Your task to perform on an android device: Show me productivity apps on the Play Store Image 0: 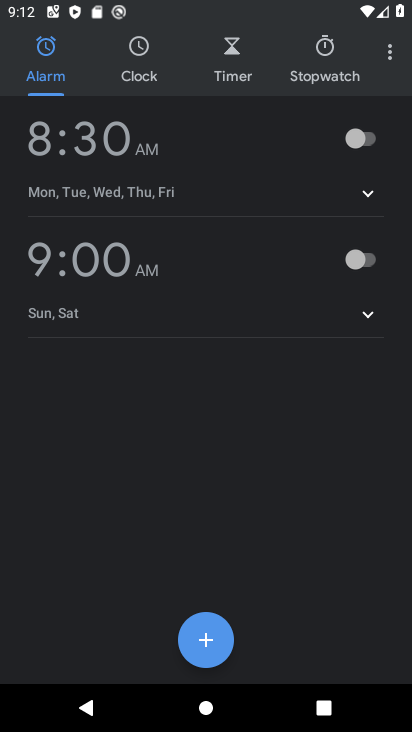
Step 0: press home button
Your task to perform on an android device: Show me productivity apps on the Play Store Image 1: 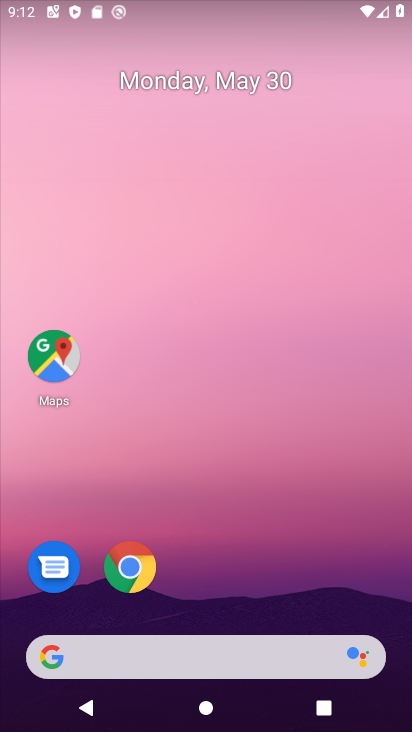
Step 1: drag from (180, 603) to (255, 142)
Your task to perform on an android device: Show me productivity apps on the Play Store Image 2: 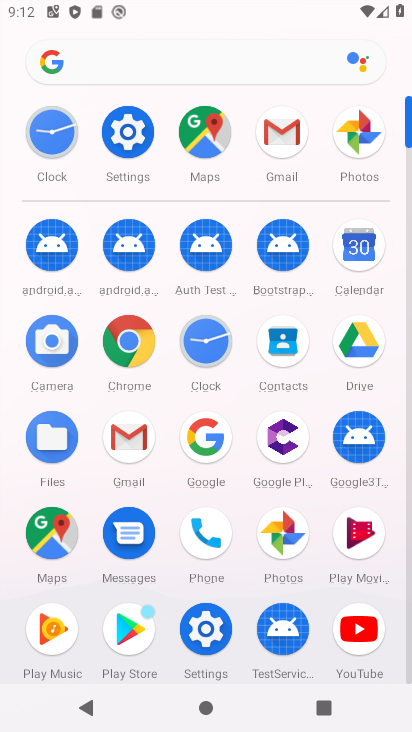
Step 2: click (143, 622)
Your task to perform on an android device: Show me productivity apps on the Play Store Image 3: 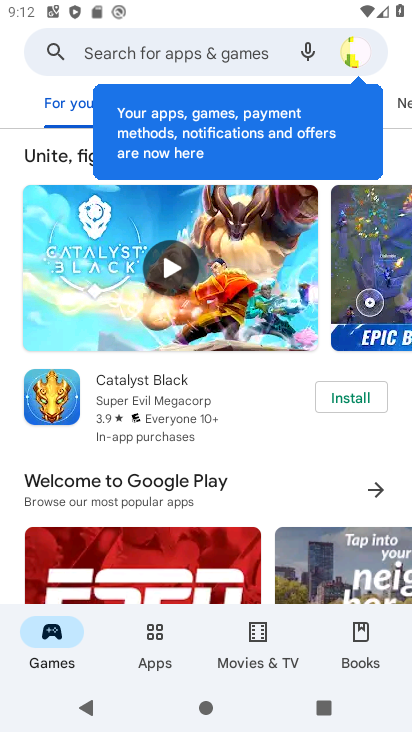
Step 3: click (155, 640)
Your task to perform on an android device: Show me productivity apps on the Play Store Image 4: 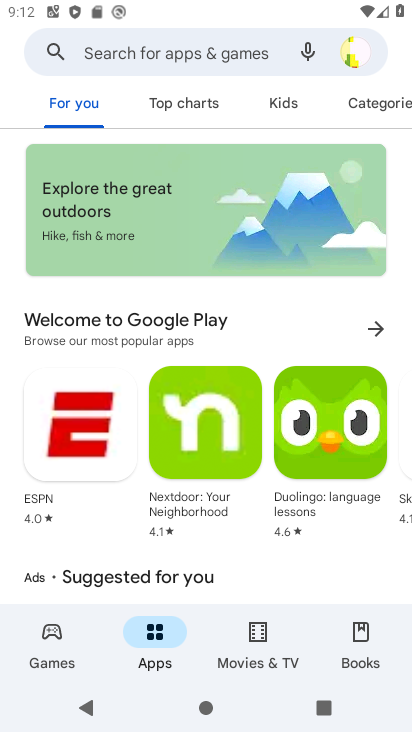
Step 4: click (385, 103)
Your task to perform on an android device: Show me productivity apps on the Play Store Image 5: 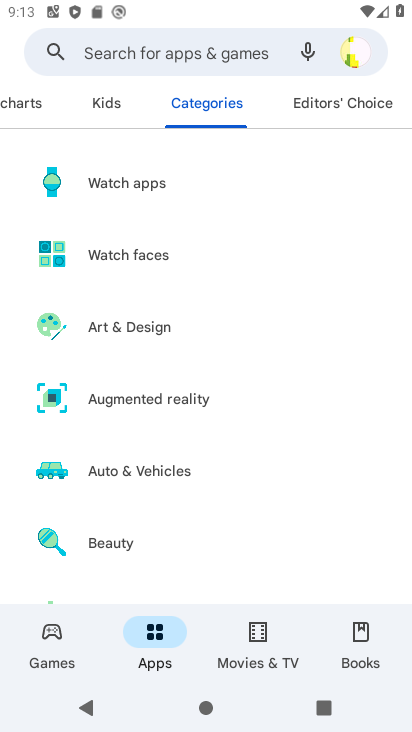
Step 5: drag from (121, 537) to (204, 136)
Your task to perform on an android device: Show me productivity apps on the Play Store Image 6: 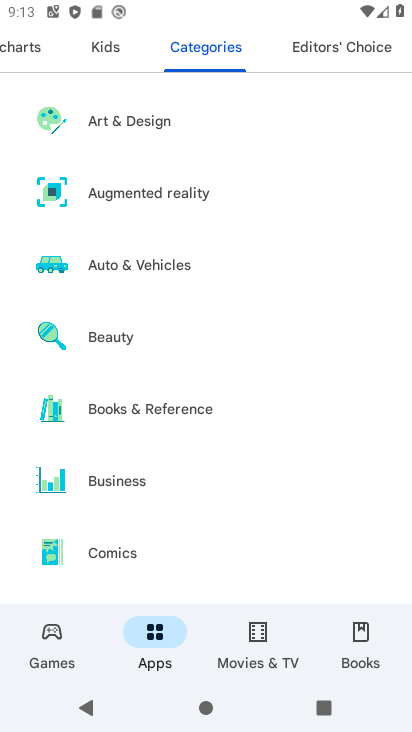
Step 6: drag from (105, 581) to (149, 135)
Your task to perform on an android device: Show me productivity apps on the Play Store Image 7: 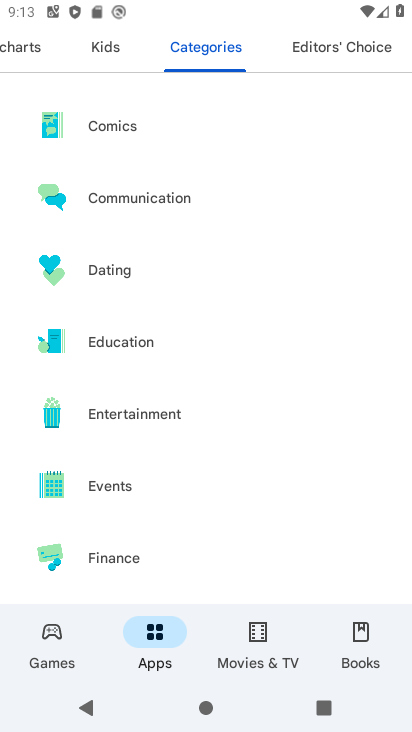
Step 7: drag from (107, 527) to (179, 124)
Your task to perform on an android device: Show me productivity apps on the Play Store Image 8: 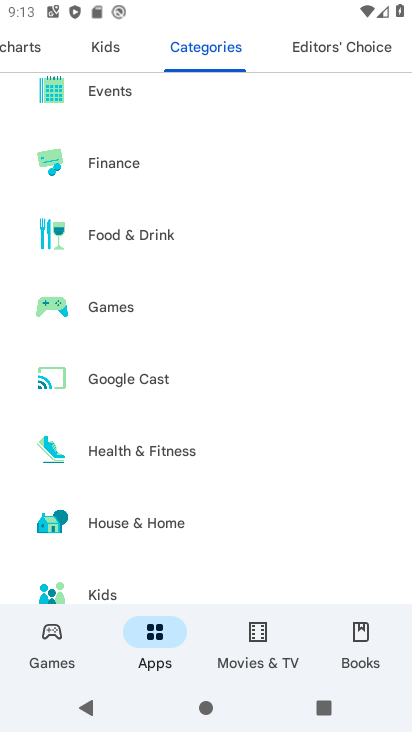
Step 8: drag from (141, 562) to (251, 96)
Your task to perform on an android device: Show me productivity apps on the Play Store Image 9: 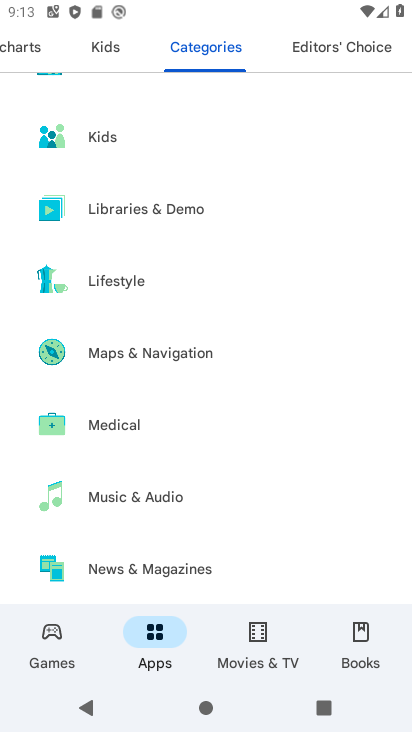
Step 9: drag from (112, 516) to (180, 109)
Your task to perform on an android device: Show me productivity apps on the Play Store Image 10: 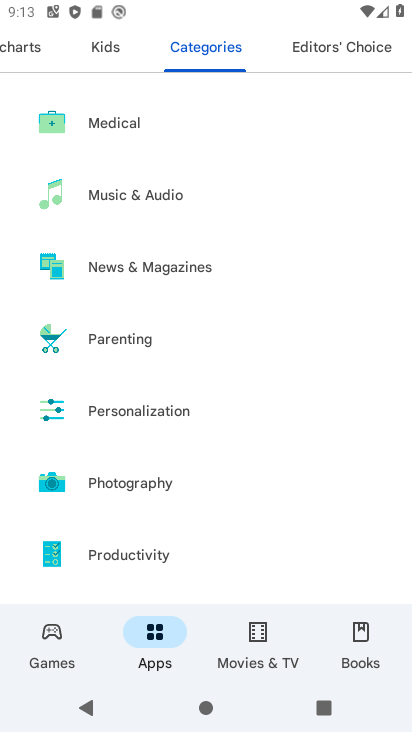
Step 10: click (122, 568)
Your task to perform on an android device: Show me productivity apps on the Play Store Image 11: 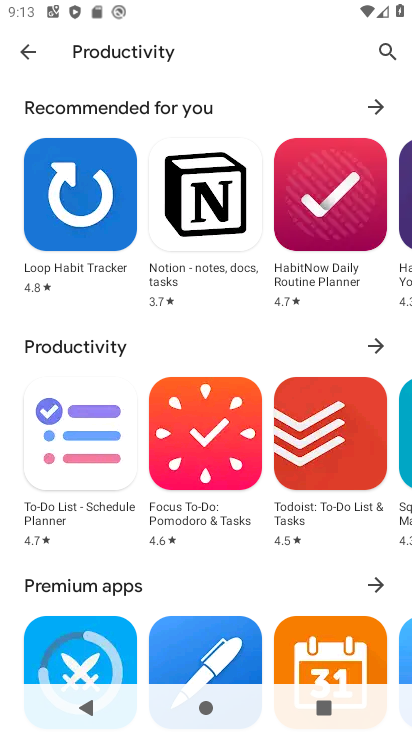
Step 11: click (375, 341)
Your task to perform on an android device: Show me productivity apps on the Play Store Image 12: 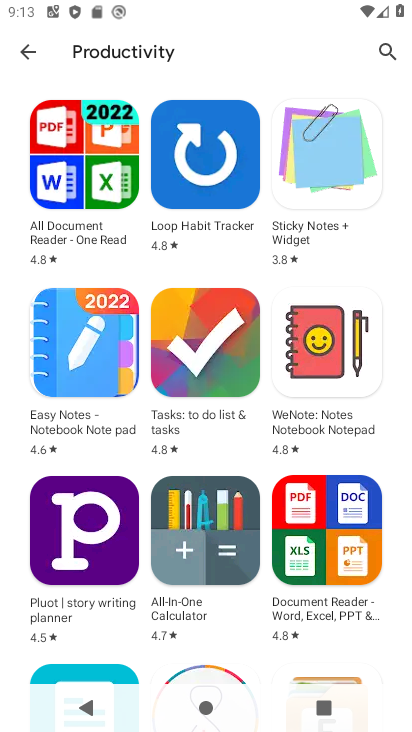
Step 12: task complete